Your task to perform on an android device: Show me productivity apps on the Play Store Image 0: 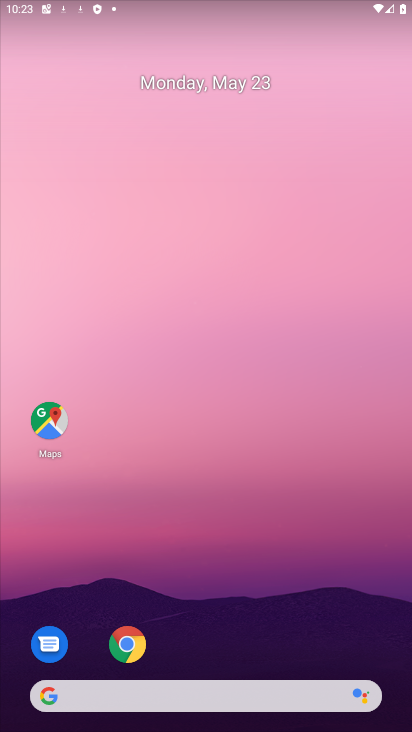
Step 0: drag from (244, 714) to (175, 55)
Your task to perform on an android device: Show me productivity apps on the Play Store Image 1: 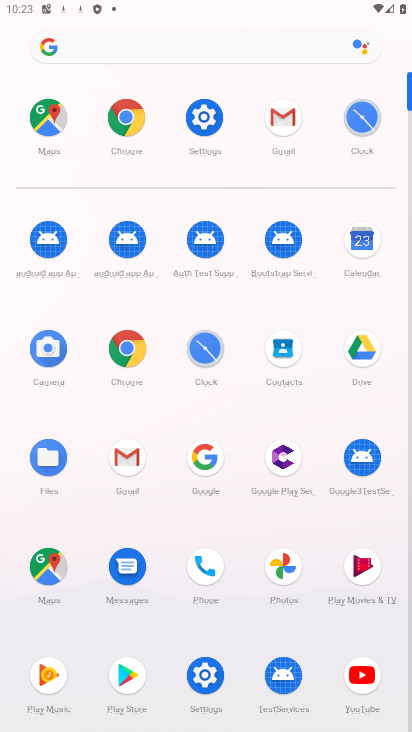
Step 1: click (131, 678)
Your task to perform on an android device: Show me productivity apps on the Play Store Image 2: 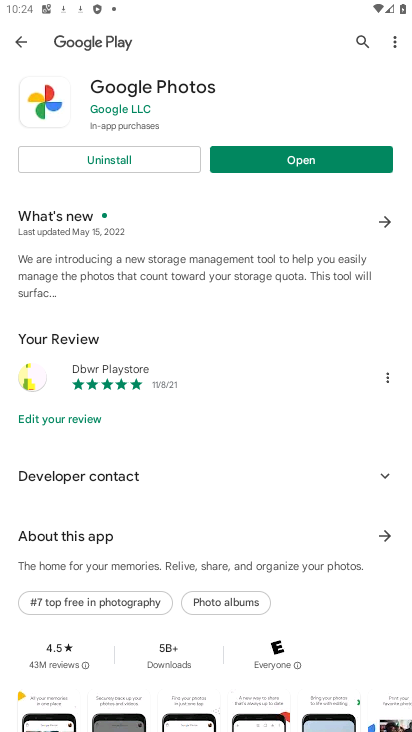
Step 2: click (353, 42)
Your task to perform on an android device: Show me productivity apps on the Play Store Image 3: 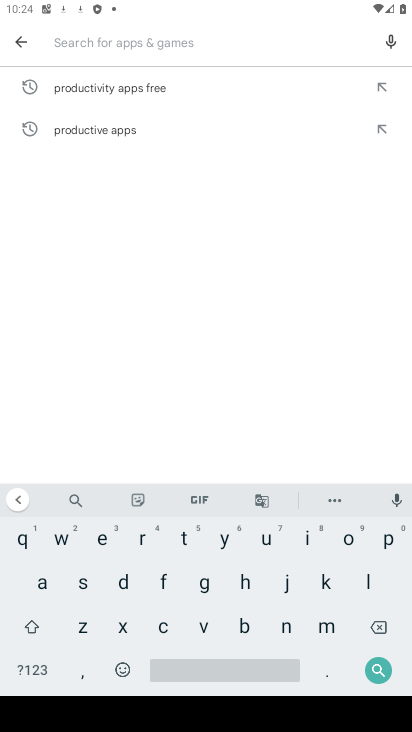
Step 3: click (153, 87)
Your task to perform on an android device: Show me productivity apps on the Play Store Image 4: 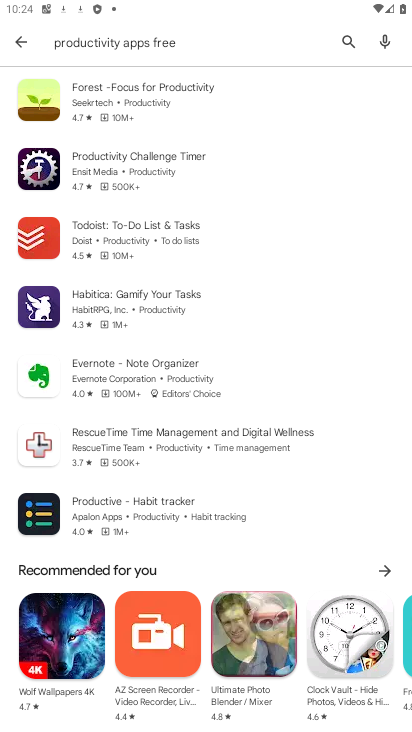
Step 4: task complete